Your task to perform on an android device: turn on wifi Image 0: 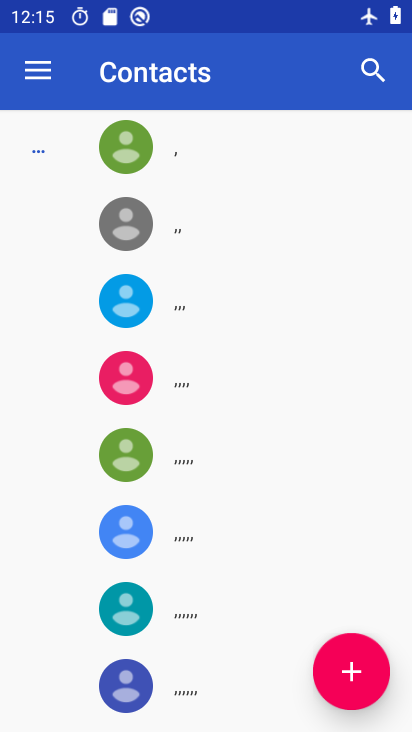
Step 0: press home button
Your task to perform on an android device: turn on wifi Image 1: 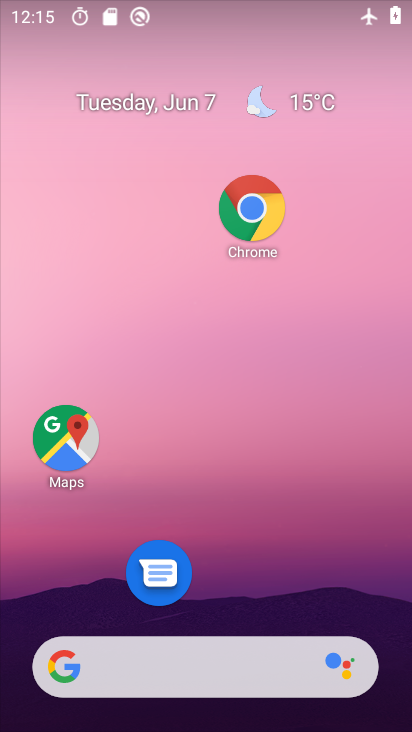
Step 1: click (232, 153)
Your task to perform on an android device: turn on wifi Image 2: 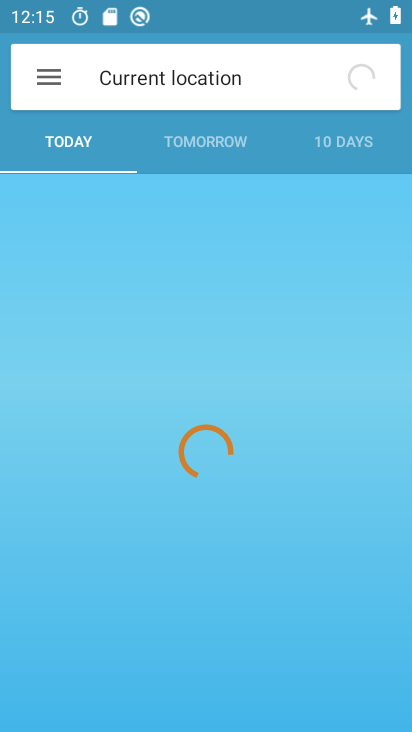
Step 2: drag from (168, 615) to (173, 577)
Your task to perform on an android device: turn on wifi Image 3: 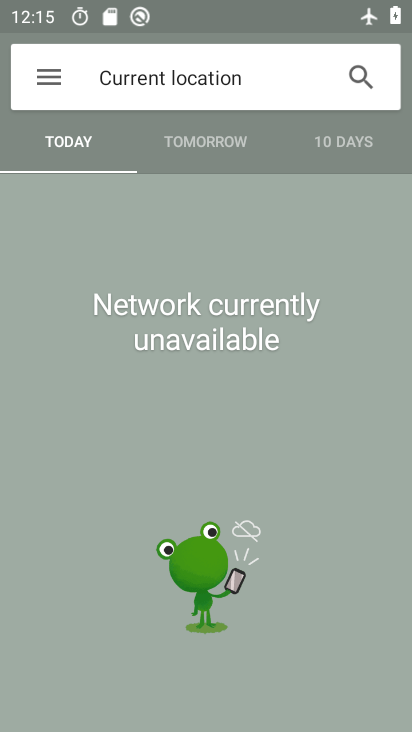
Step 3: press home button
Your task to perform on an android device: turn on wifi Image 4: 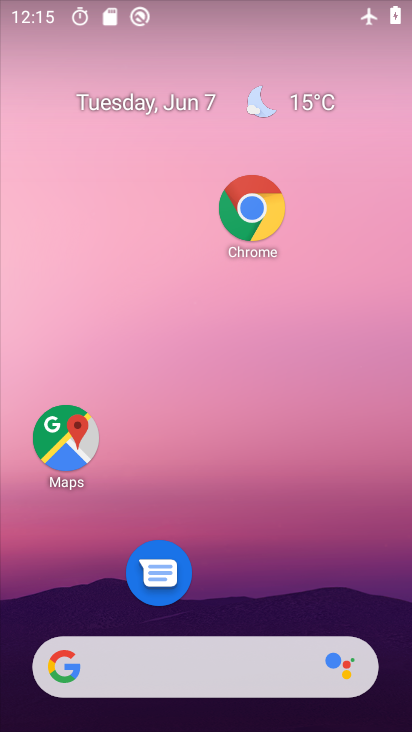
Step 4: drag from (225, 611) to (224, 186)
Your task to perform on an android device: turn on wifi Image 5: 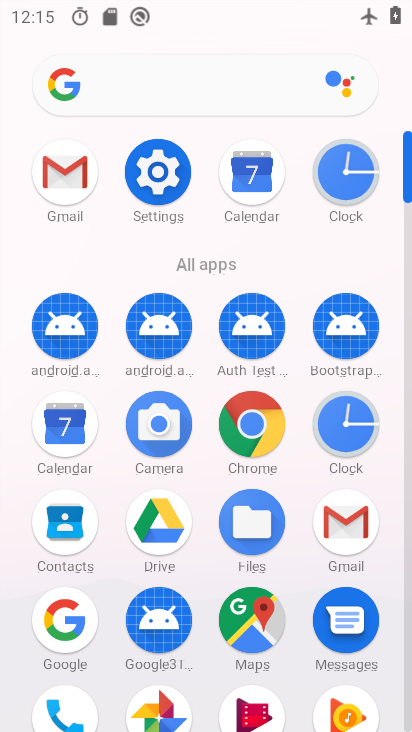
Step 5: click (179, 163)
Your task to perform on an android device: turn on wifi Image 6: 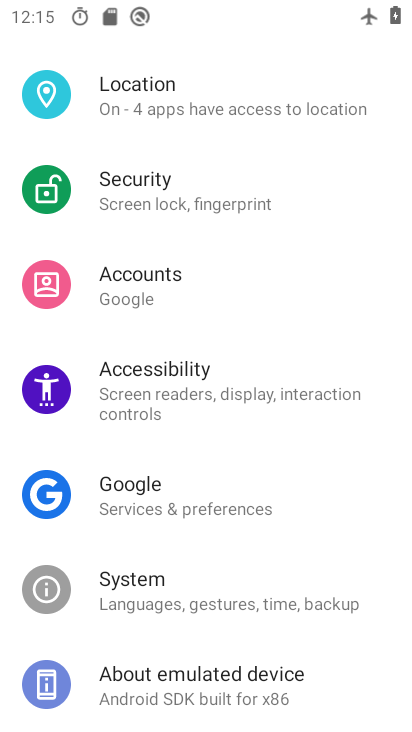
Step 6: drag from (210, 150) to (261, 453)
Your task to perform on an android device: turn on wifi Image 7: 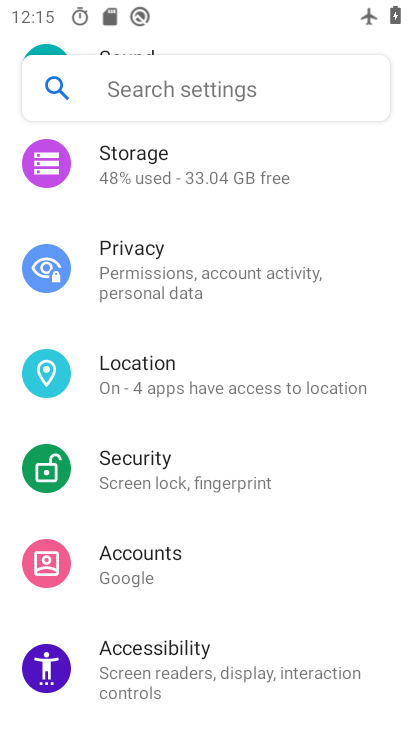
Step 7: click (266, 430)
Your task to perform on an android device: turn on wifi Image 8: 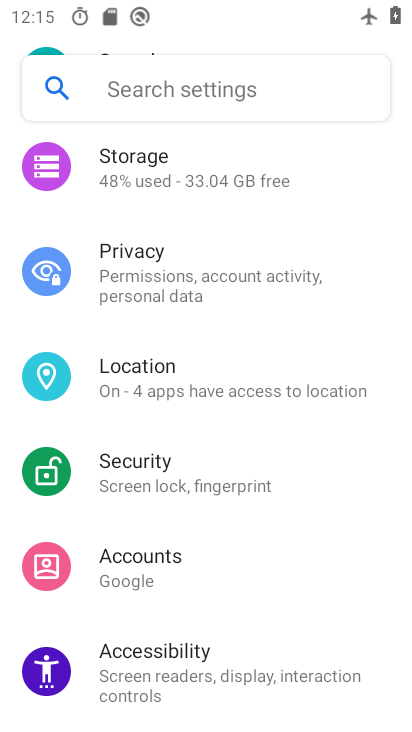
Step 8: drag from (213, 211) to (226, 533)
Your task to perform on an android device: turn on wifi Image 9: 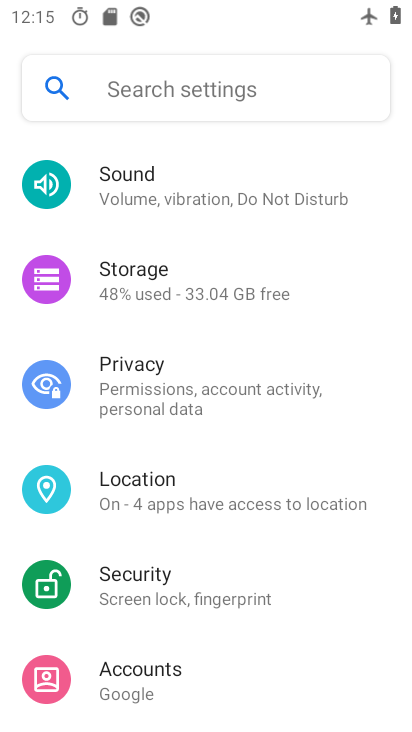
Step 9: drag from (214, 228) to (261, 585)
Your task to perform on an android device: turn on wifi Image 10: 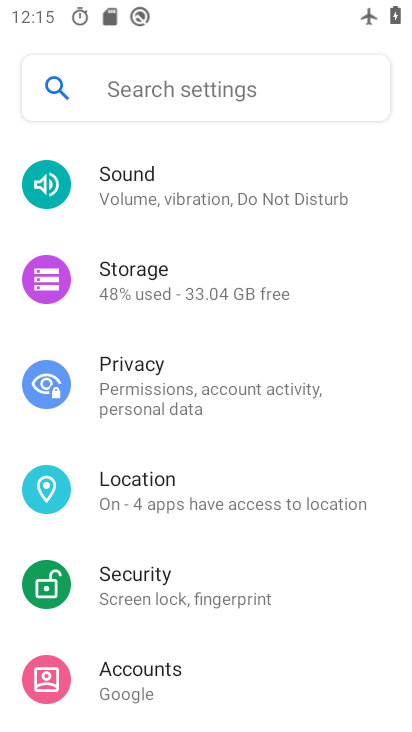
Step 10: drag from (217, 209) to (249, 483)
Your task to perform on an android device: turn on wifi Image 11: 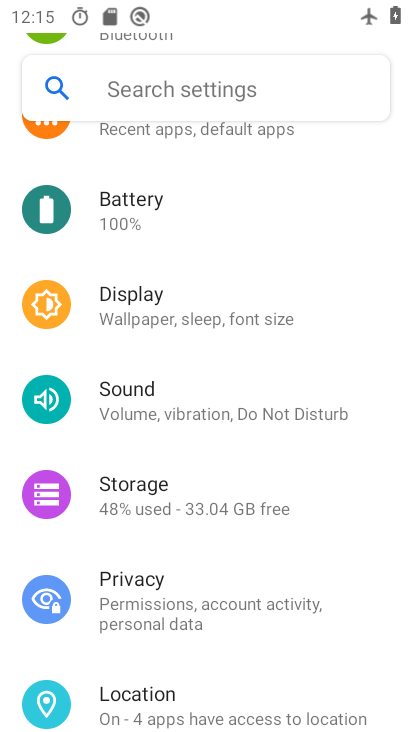
Step 11: drag from (238, 200) to (282, 494)
Your task to perform on an android device: turn on wifi Image 12: 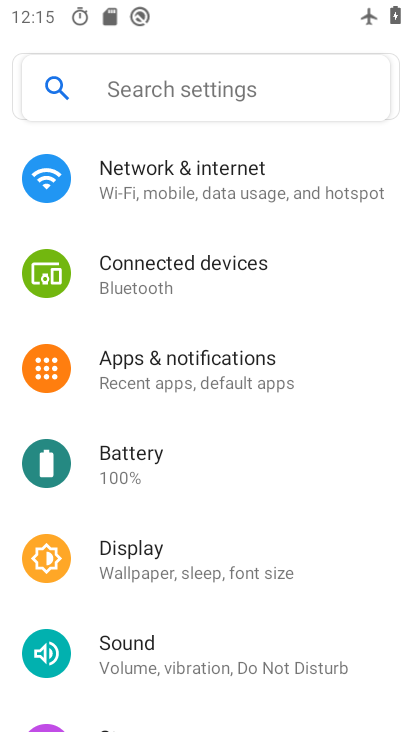
Step 12: click (230, 178)
Your task to perform on an android device: turn on wifi Image 13: 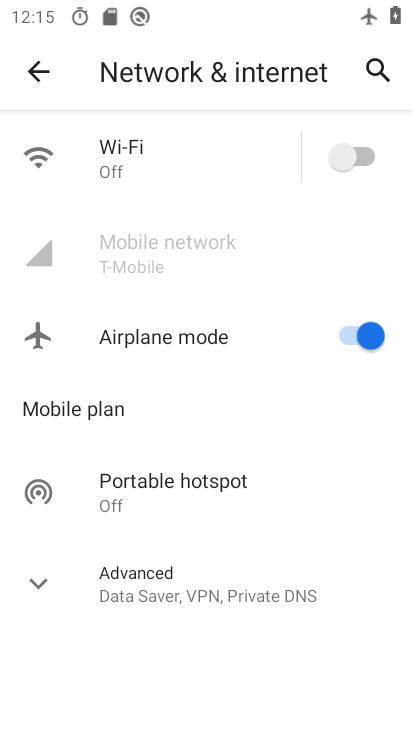
Step 13: click (362, 150)
Your task to perform on an android device: turn on wifi Image 14: 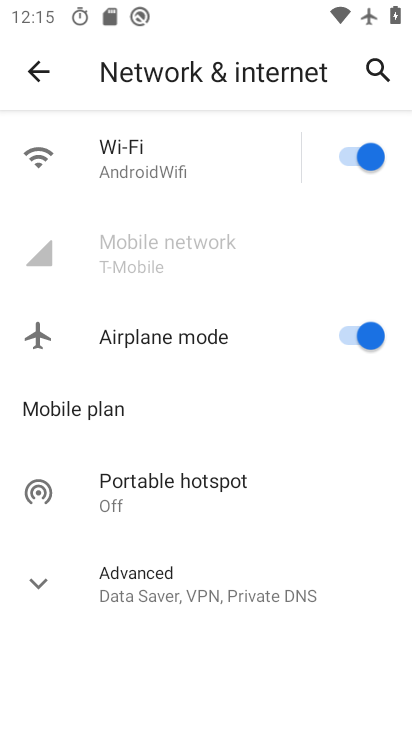
Step 14: task complete